Your task to perform on an android device: toggle notifications settings in the gmail app Image 0: 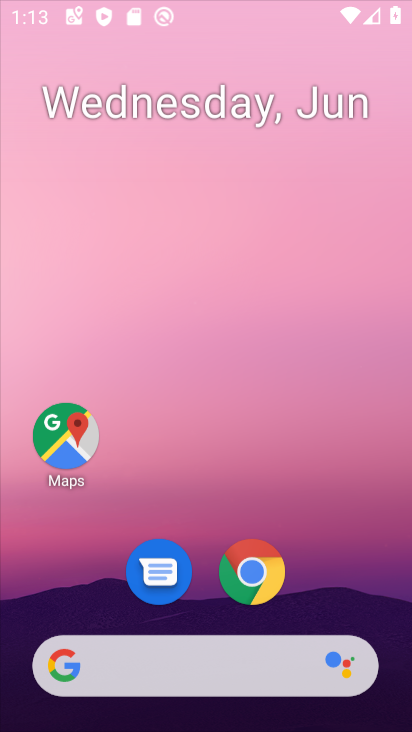
Step 0: click (281, 121)
Your task to perform on an android device: toggle notifications settings in the gmail app Image 1: 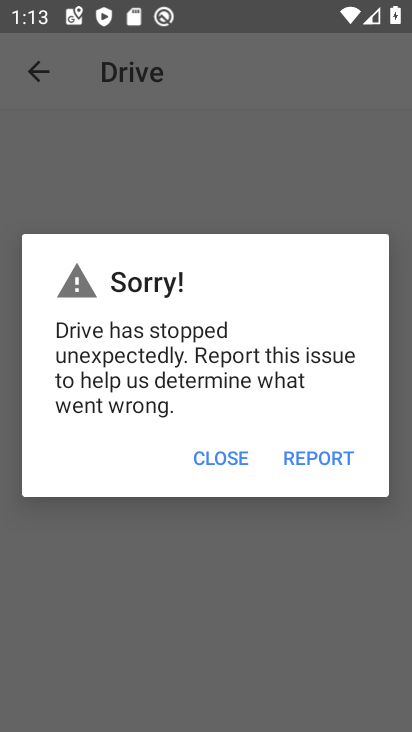
Step 1: press home button
Your task to perform on an android device: toggle notifications settings in the gmail app Image 2: 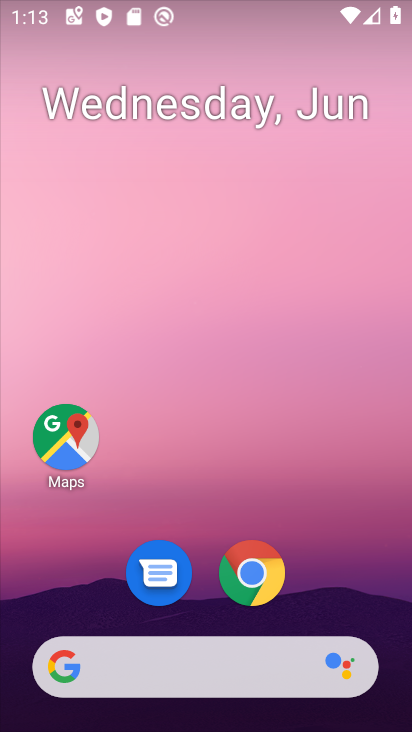
Step 2: drag from (324, 564) to (287, 126)
Your task to perform on an android device: toggle notifications settings in the gmail app Image 3: 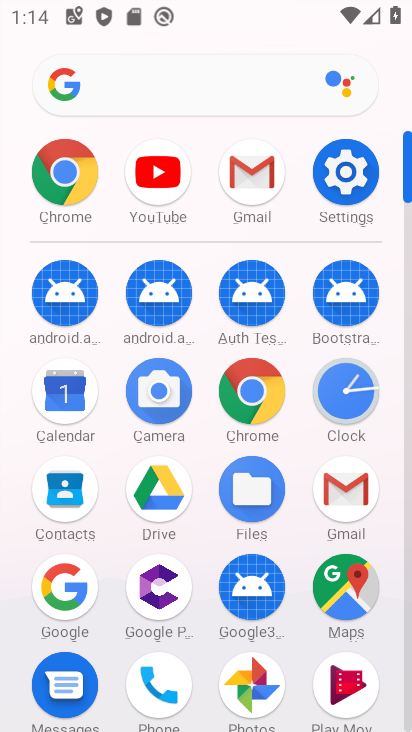
Step 3: click (330, 508)
Your task to perform on an android device: toggle notifications settings in the gmail app Image 4: 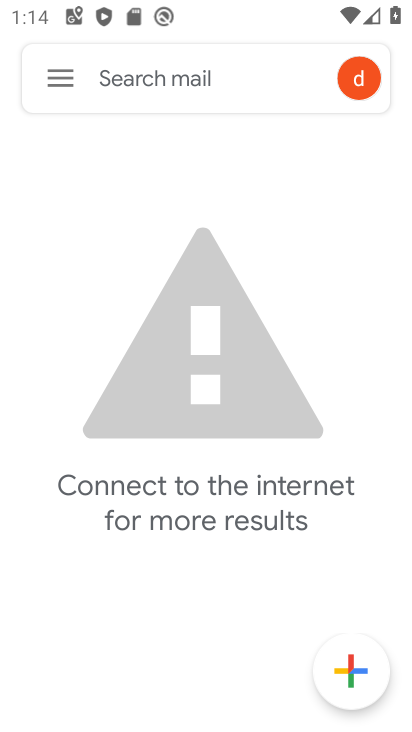
Step 4: click (71, 76)
Your task to perform on an android device: toggle notifications settings in the gmail app Image 5: 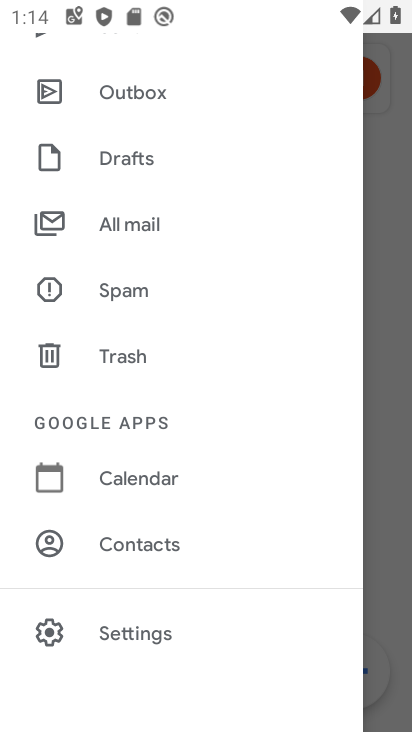
Step 5: click (171, 635)
Your task to perform on an android device: toggle notifications settings in the gmail app Image 6: 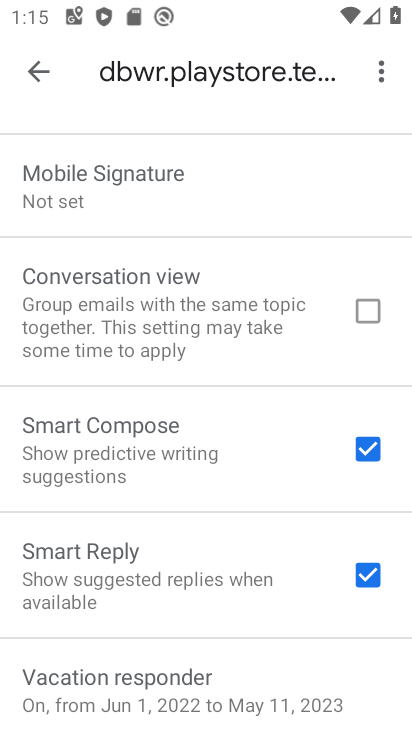
Step 6: drag from (256, 577) to (252, 252)
Your task to perform on an android device: toggle notifications settings in the gmail app Image 7: 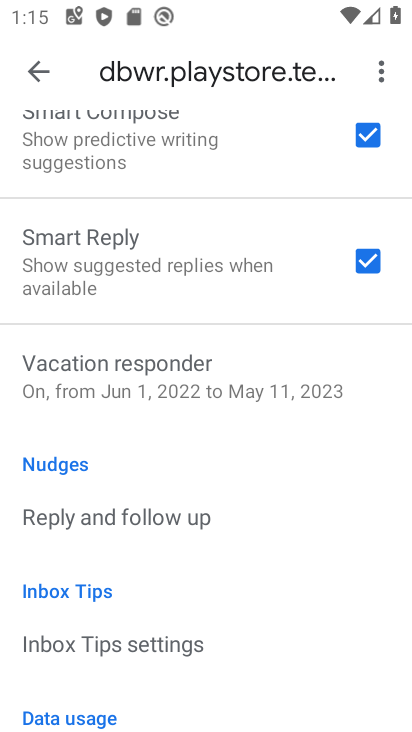
Step 7: drag from (254, 257) to (289, 583)
Your task to perform on an android device: toggle notifications settings in the gmail app Image 8: 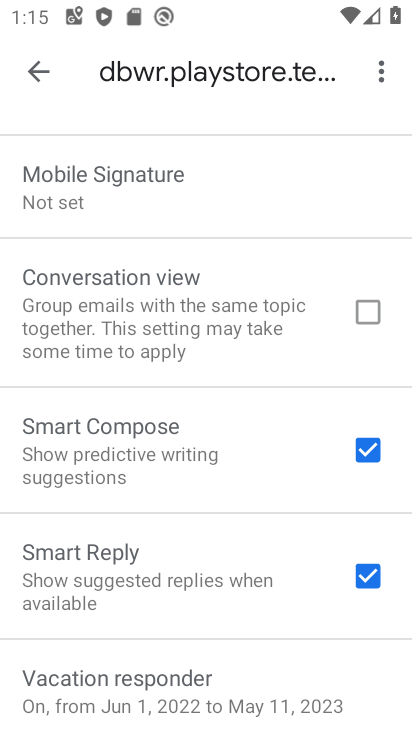
Step 8: drag from (262, 265) to (291, 597)
Your task to perform on an android device: toggle notifications settings in the gmail app Image 9: 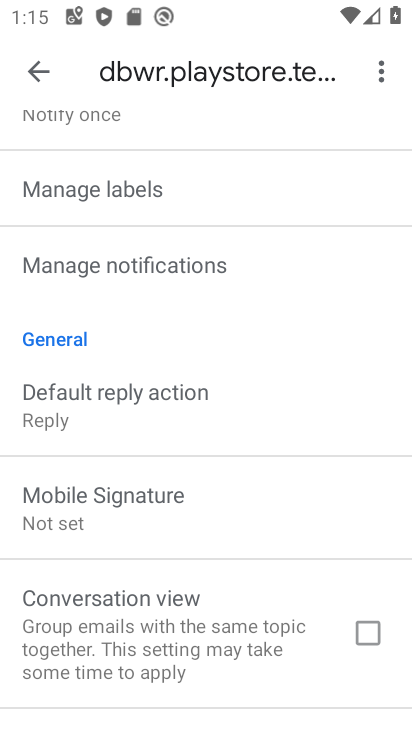
Step 9: drag from (166, 359) to (213, 635)
Your task to perform on an android device: toggle notifications settings in the gmail app Image 10: 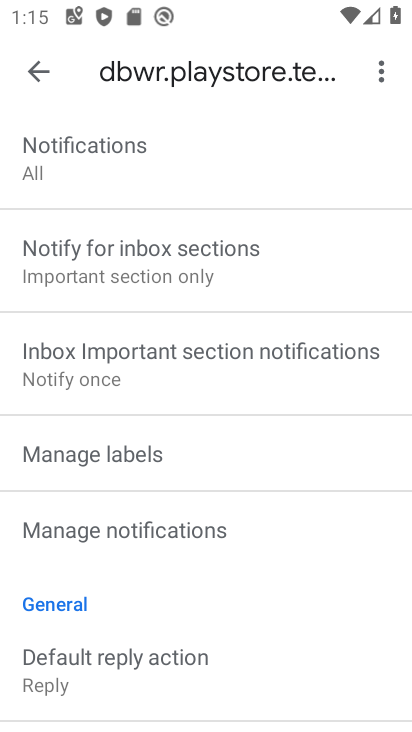
Step 10: drag from (209, 323) to (225, 685)
Your task to perform on an android device: toggle notifications settings in the gmail app Image 11: 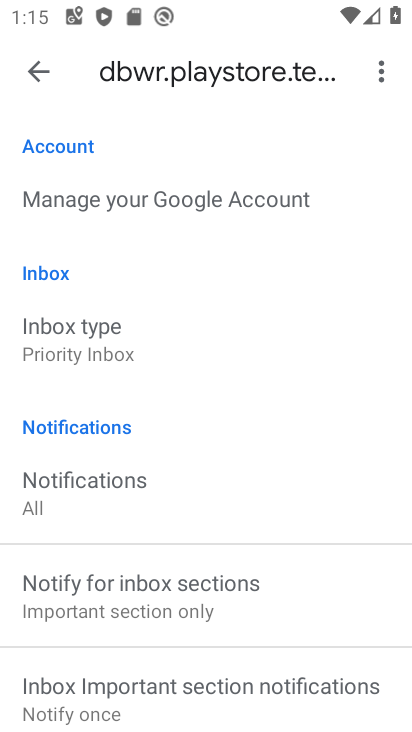
Step 11: click (88, 487)
Your task to perform on an android device: toggle notifications settings in the gmail app Image 12: 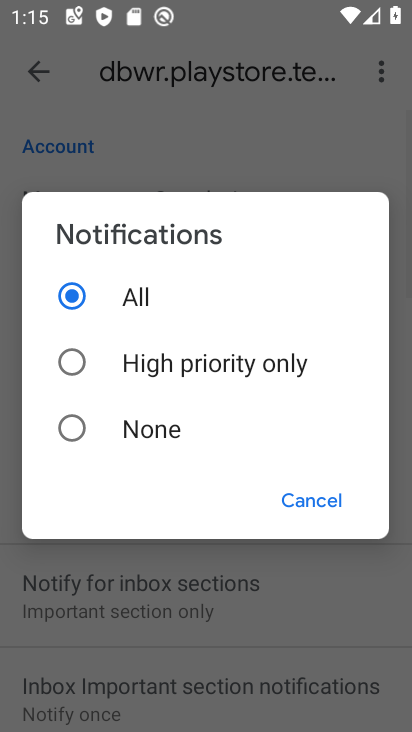
Step 12: click (129, 436)
Your task to perform on an android device: toggle notifications settings in the gmail app Image 13: 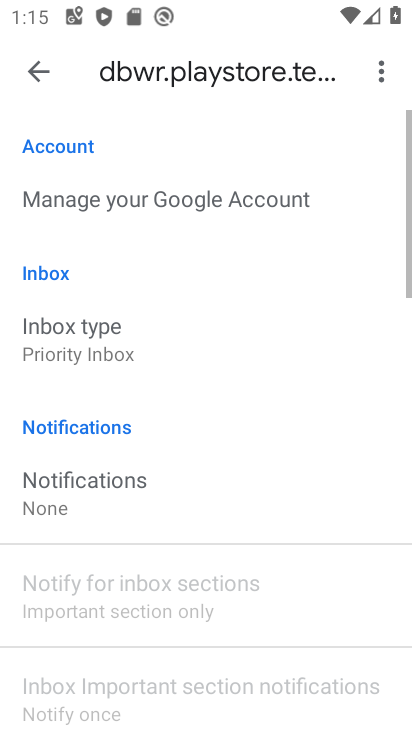
Step 13: task complete